Your task to perform on an android device: Go to internet settings Image 0: 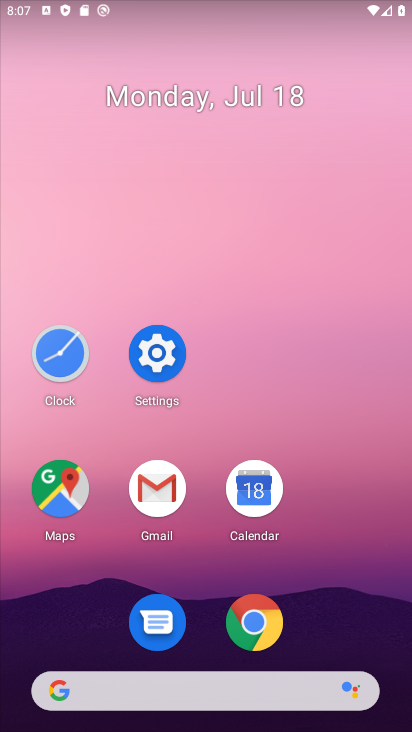
Step 0: click (155, 347)
Your task to perform on an android device: Go to internet settings Image 1: 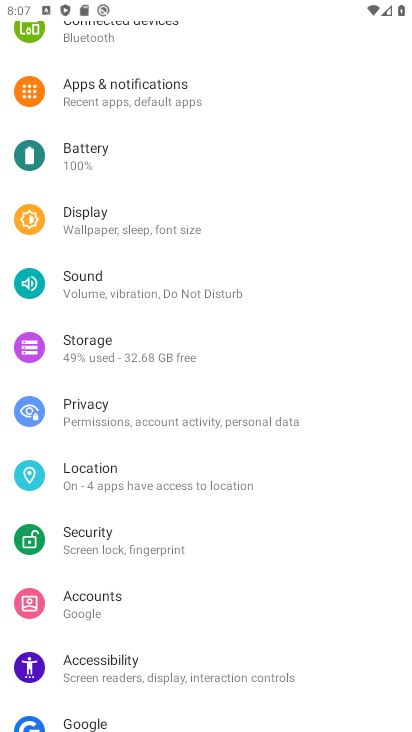
Step 1: drag from (217, 73) to (212, 411)
Your task to perform on an android device: Go to internet settings Image 2: 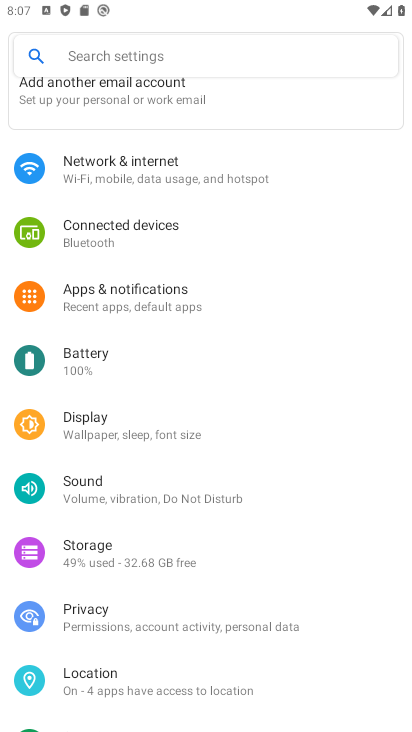
Step 2: click (105, 167)
Your task to perform on an android device: Go to internet settings Image 3: 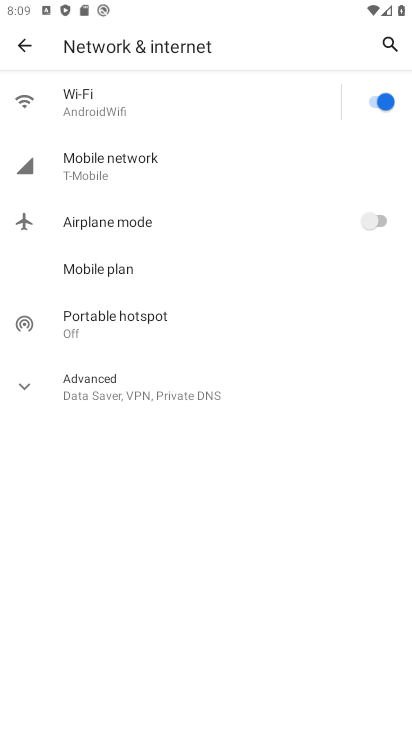
Step 3: click (21, 385)
Your task to perform on an android device: Go to internet settings Image 4: 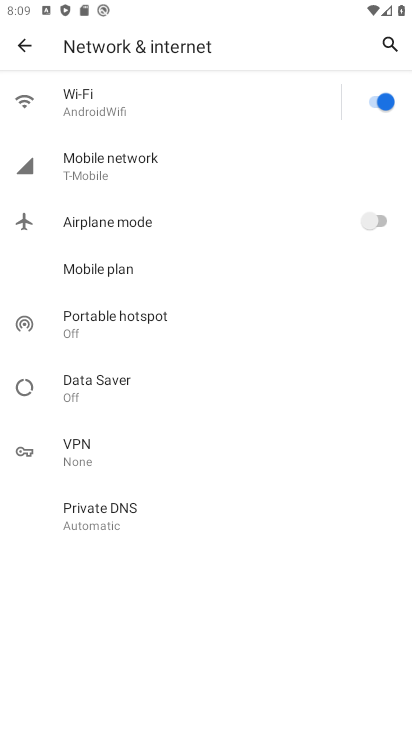
Step 4: task complete